Your task to perform on an android device: make emails show in primary in the gmail app Image 0: 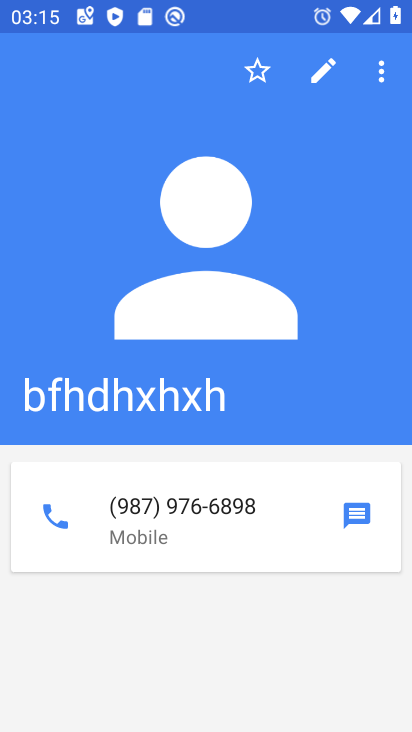
Step 0: press home button
Your task to perform on an android device: make emails show in primary in the gmail app Image 1: 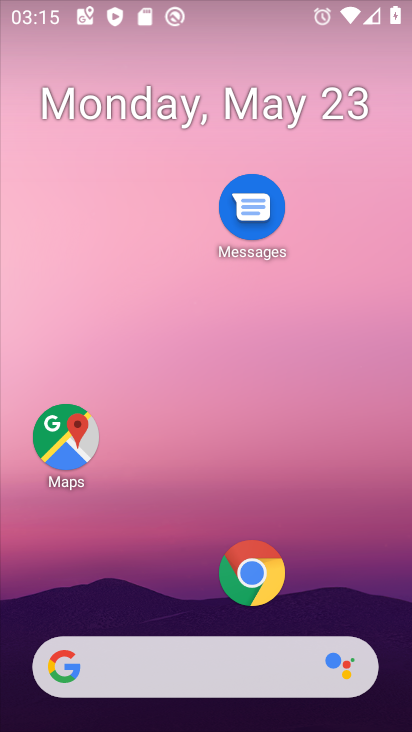
Step 1: drag from (265, 685) to (304, 100)
Your task to perform on an android device: make emails show in primary in the gmail app Image 2: 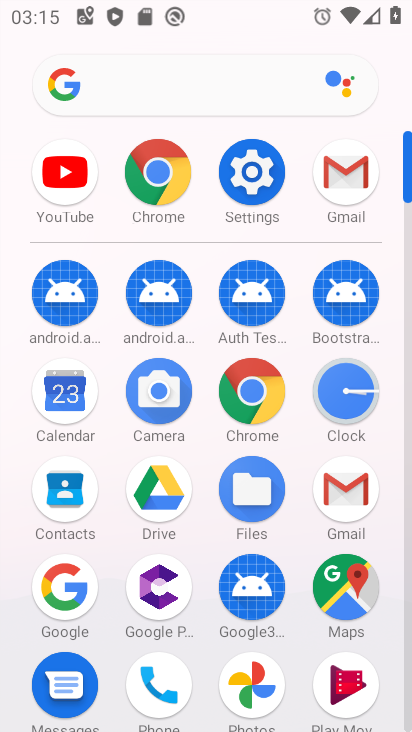
Step 2: click (360, 463)
Your task to perform on an android device: make emails show in primary in the gmail app Image 3: 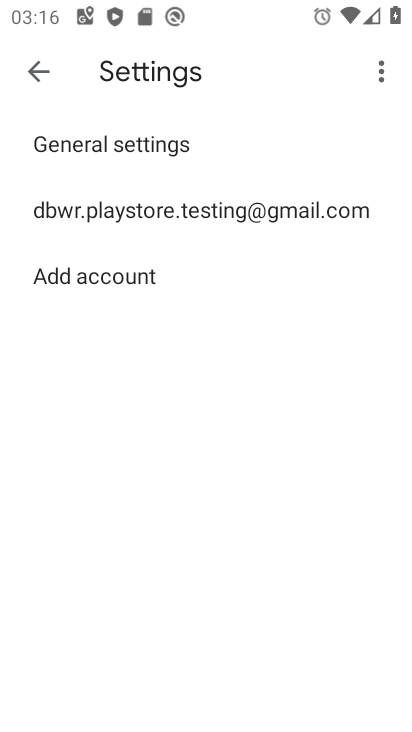
Step 3: press back button
Your task to perform on an android device: make emails show in primary in the gmail app Image 4: 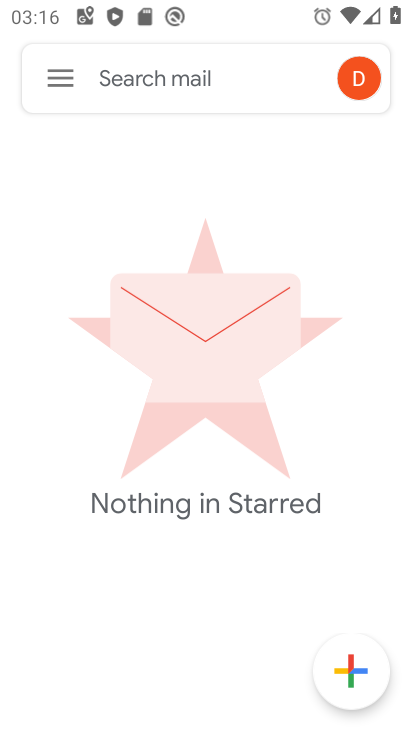
Step 4: click (43, 68)
Your task to perform on an android device: make emails show in primary in the gmail app Image 5: 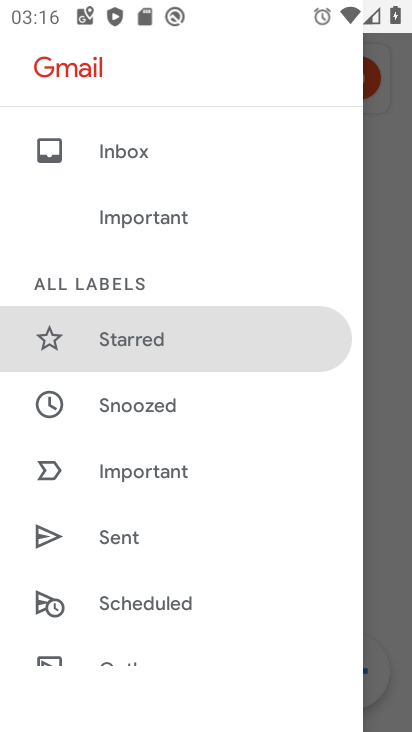
Step 5: drag from (188, 224) to (167, 683)
Your task to perform on an android device: make emails show in primary in the gmail app Image 6: 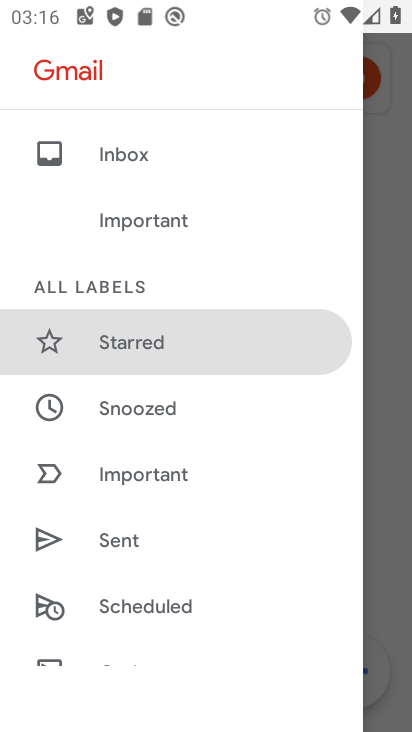
Step 6: drag from (187, 654) to (162, 46)
Your task to perform on an android device: make emails show in primary in the gmail app Image 7: 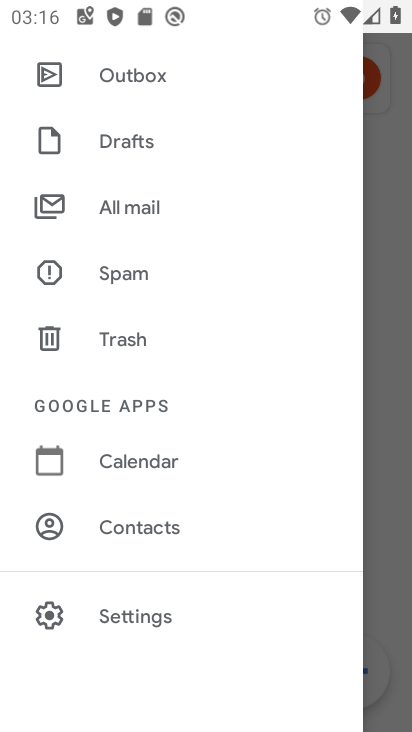
Step 7: click (137, 626)
Your task to perform on an android device: make emails show in primary in the gmail app Image 8: 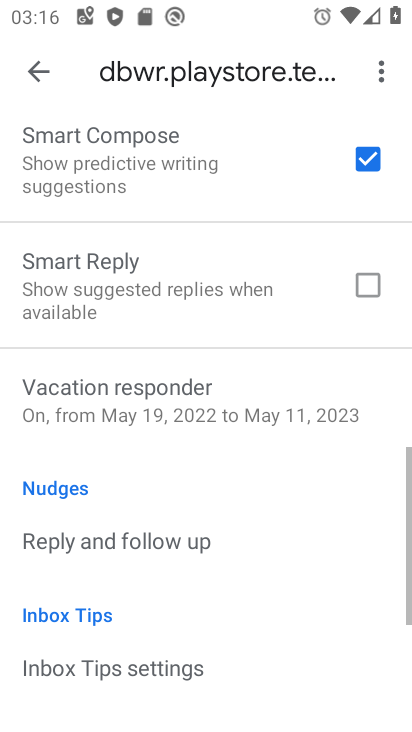
Step 8: drag from (166, 592) to (166, 72)
Your task to perform on an android device: make emails show in primary in the gmail app Image 9: 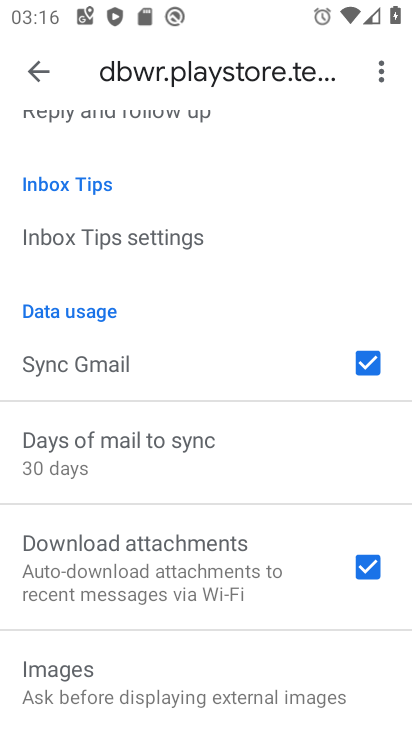
Step 9: drag from (203, 629) to (213, 123)
Your task to perform on an android device: make emails show in primary in the gmail app Image 10: 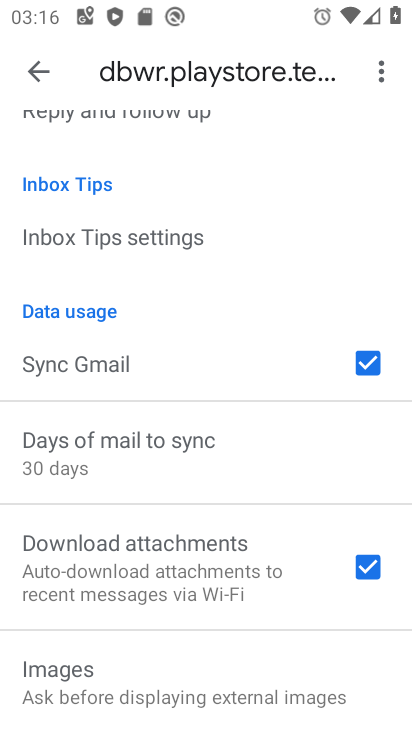
Step 10: drag from (240, 196) to (325, 727)
Your task to perform on an android device: make emails show in primary in the gmail app Image 11: 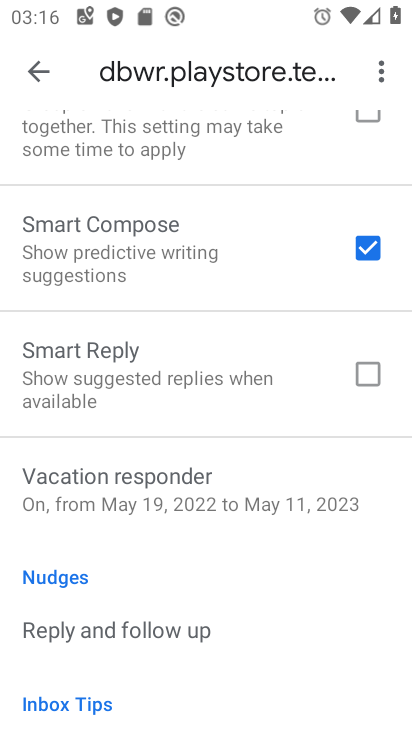
Step 11: drag from (163, 322) to (271, 730)
Your task to perform on an android device: make emails show in primary in the gmail app Image 12: 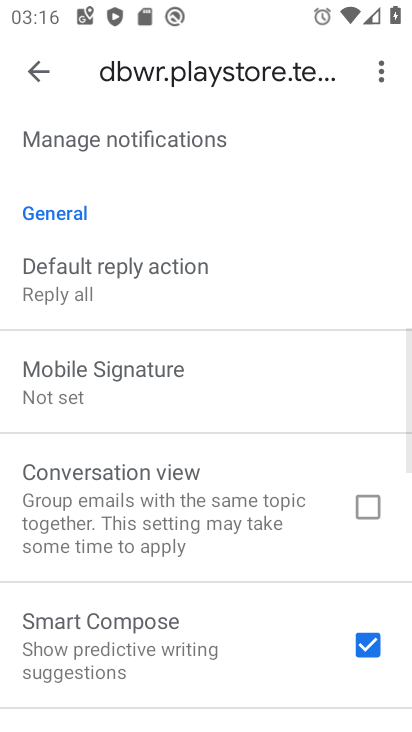
Step 12: drag from (233, 284) to (249, 704)
Your task to perform on an android device: make emails show in primary in the gmail app Image 13: 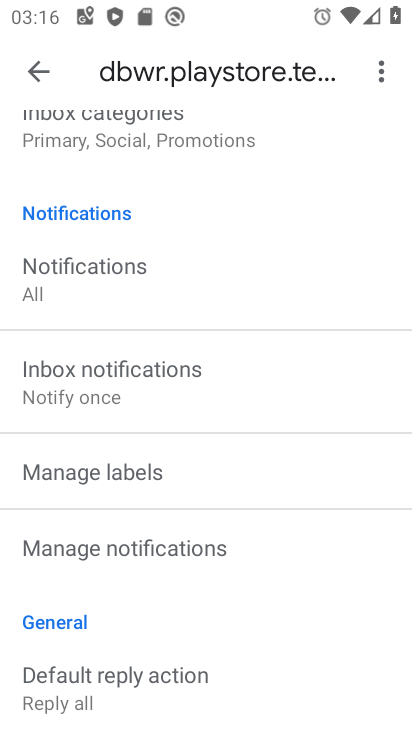
Step 13: drag from (159, 141) to (137, 702)
Your task to perform on an android device: make emails show in primary in the gmail app Image 14: 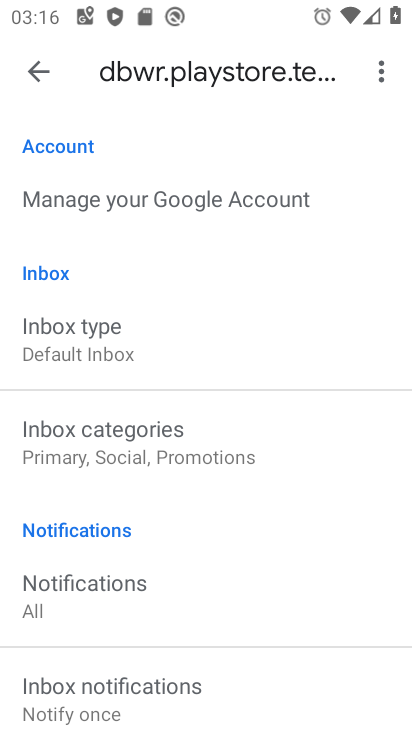
Step 14: press back button
Your task to perform on an android device: make emails show in primary in the gmail app Image 15: 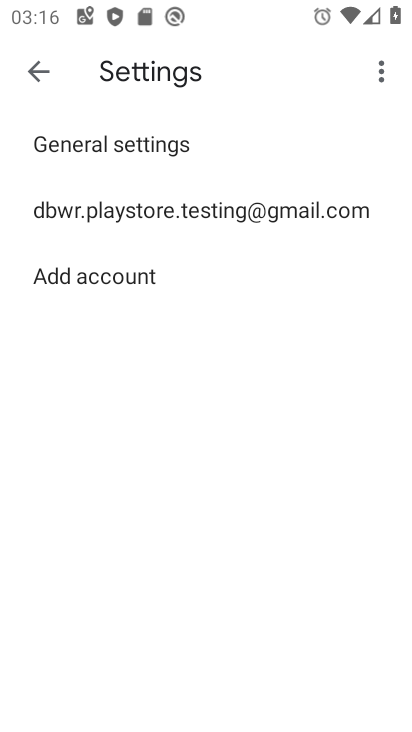
Step 15: press back button
Your task to perform on an android device: make emails show in primary in the gmail app Image 16: 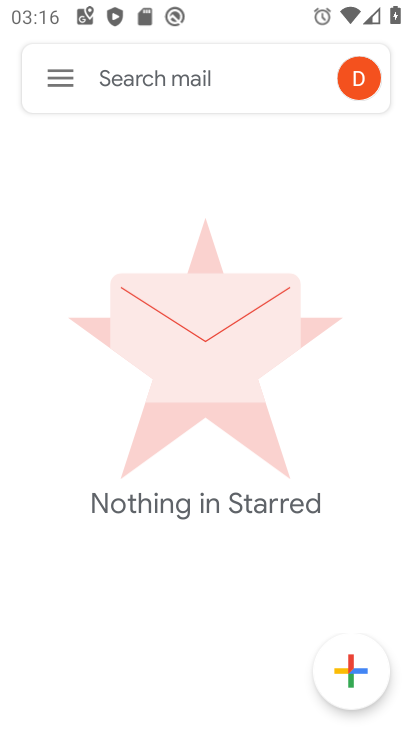
Step 16: click (44, 55)
Your task to perform on an android device: make emails show in primary in the gmail app Image 17: 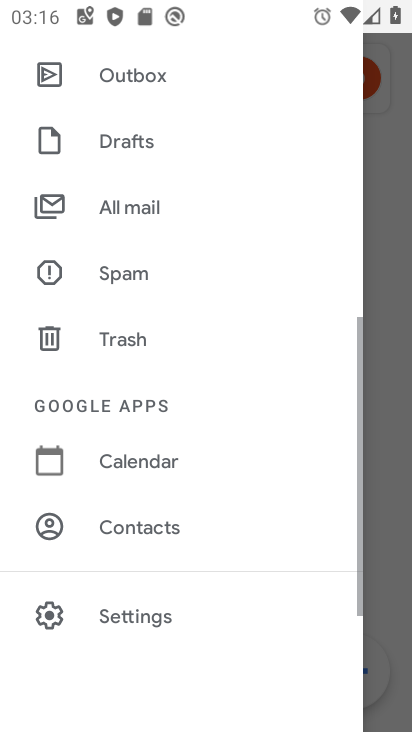
Step 17: task complete